Your task to perform on an android device: set default search engine in the chrome app Image 0: 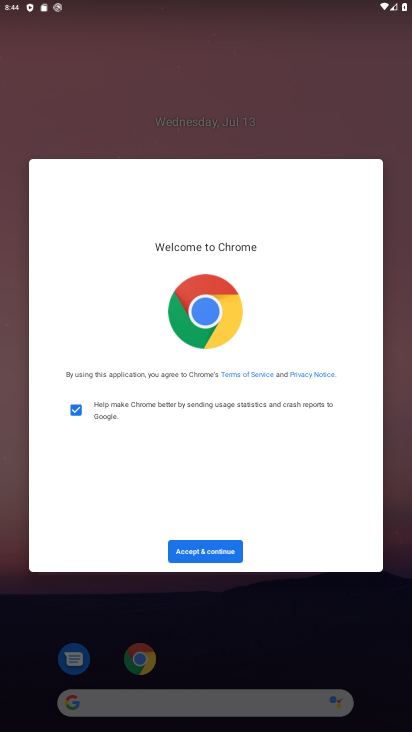
Step 0: click (204, 556)
Your task to perform on an android device: set default search engine in the chrome app Image 1: 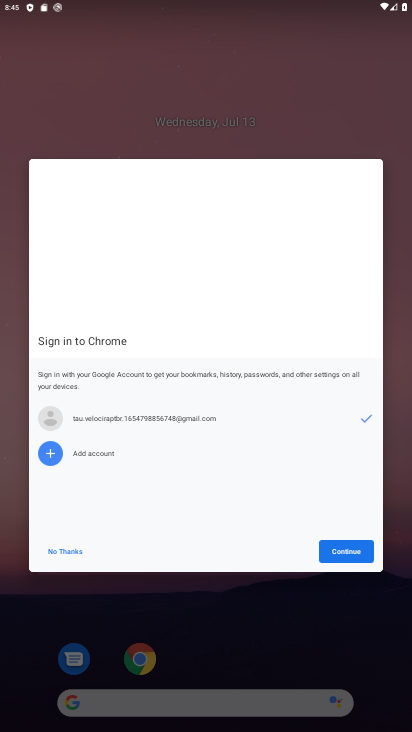
Step 1: click (334, 552)
Your task to perform on an android device: set default search engine in the chrome app Image 2: 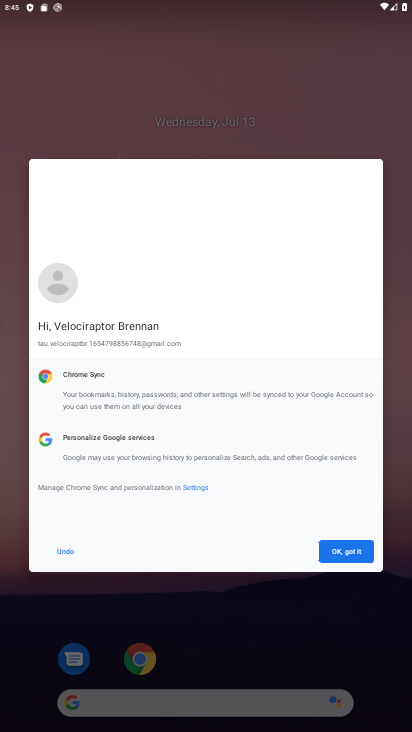
Step 2: click (350, 554)
Your task to perform on an android device: set default search engine in the chrome app Image 3: 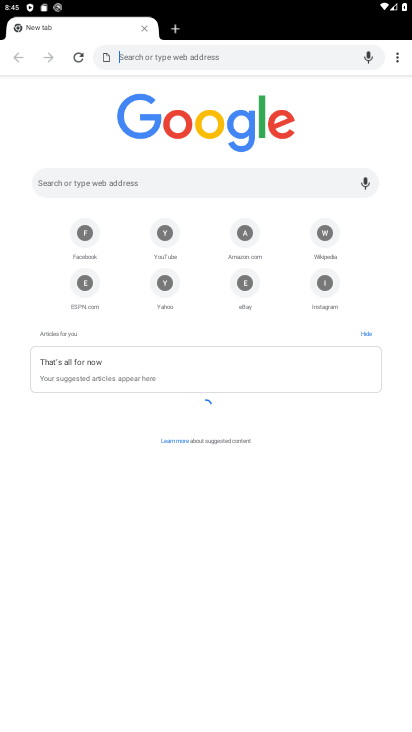
Step 3: click (395, 62)
Your task to perform on an android device: set default search engine in the chrome app Image 4: 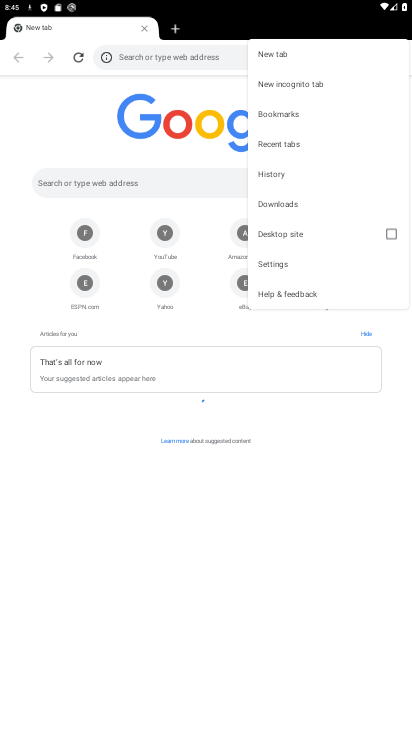
Step 4: click (277, 260)
Your task to perform on an android device: set default search engine in the chrome app Image 5: 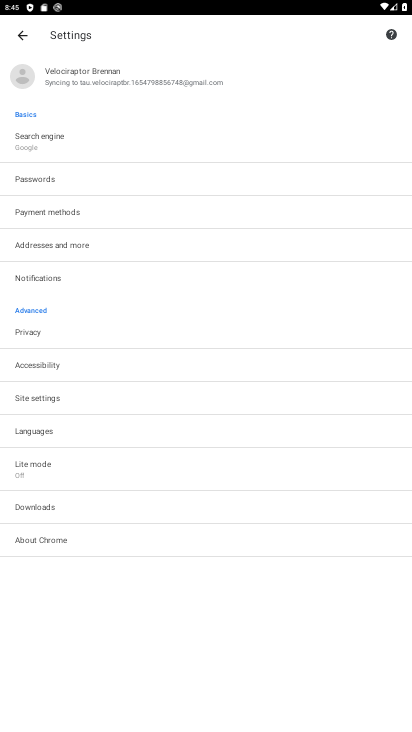
Step 5: click (33, 141)
Your task to perform on an android device: set default search engine in the chrome app Image 6: 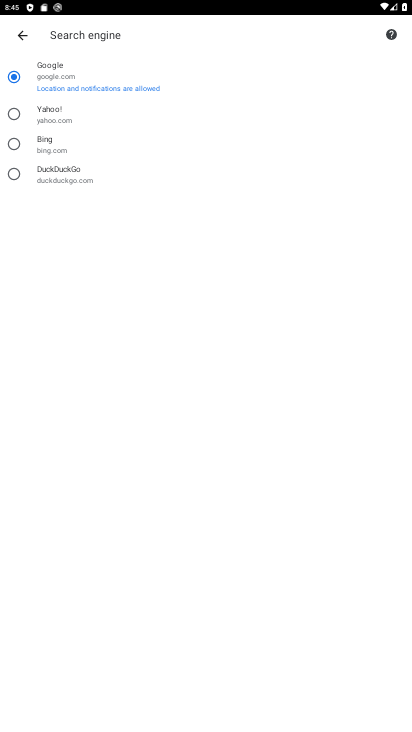
Step 6: click (9, 118)
Your task to perform on an android device: set default search engine in the chrome app Image 7: 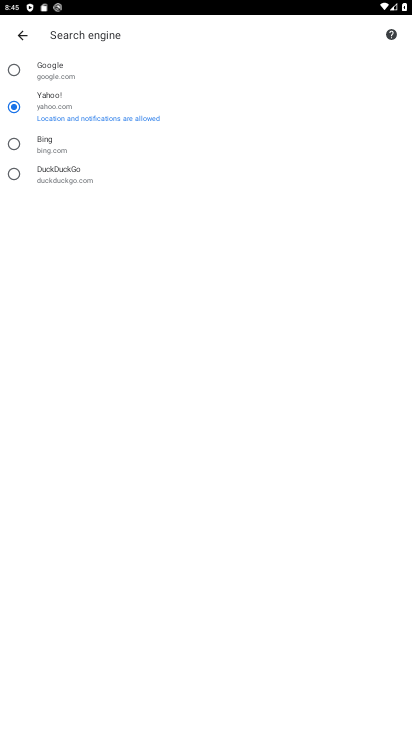
Step 7: task complete